Your task to perform on an android device: Go to CNN.com Image 0: 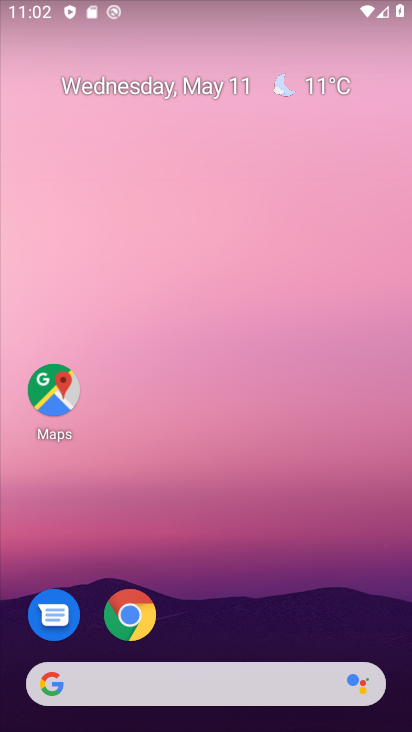
Step 0: click (128, 618)
Your task to perform on an android device: Go to CNN.com Image 1: 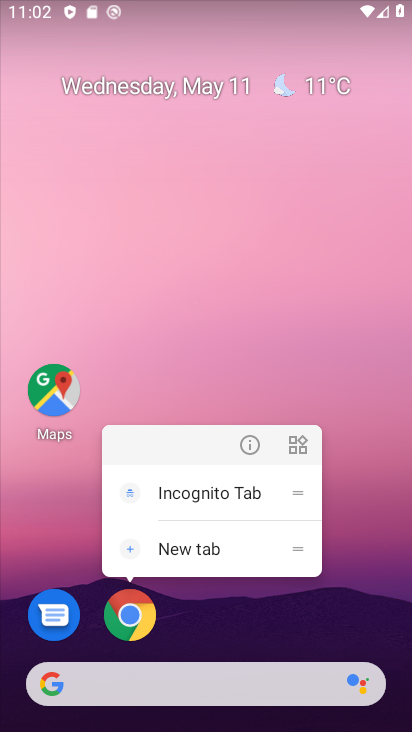
Step 1: click (133, 624)
Your task to perform on an android device: Go to CNN.com Image 2: 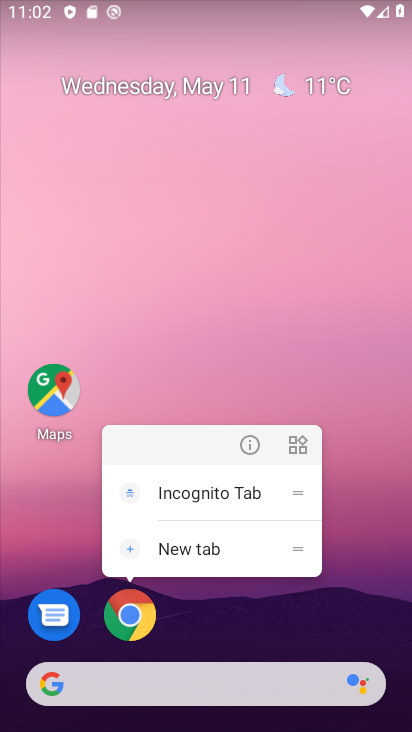
Step 2: click (133, 624)
Your task to perform on an android device: Go to CNN.com Image 3: 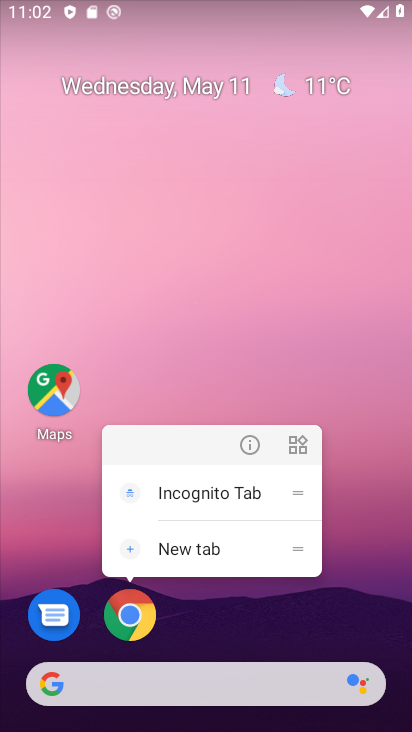
Step 3: click (132, 620)
Your task to perform on an android device: Go to CNN.com Image 4: 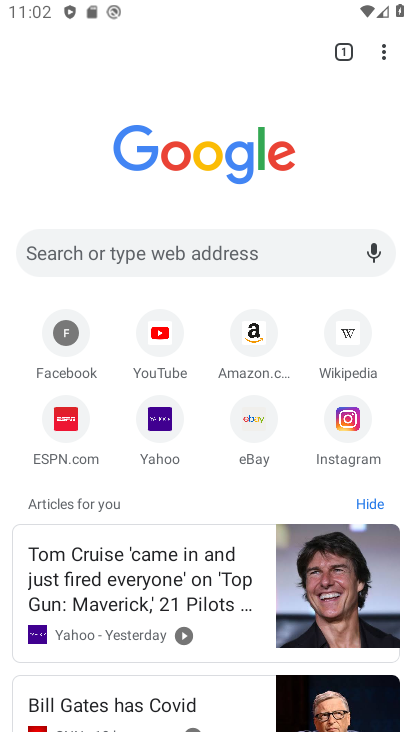
Step 4: click (171, 259)
Your task to perform on an android device: Go to CNN.com Image 5: 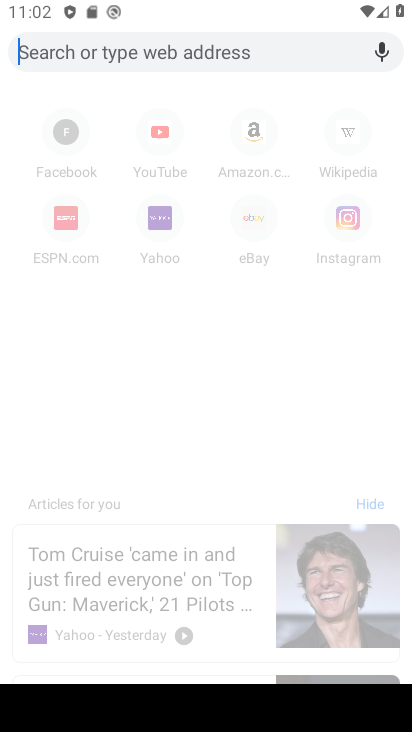
Step 5: type "CNN.com"
Your task to perform on an android device: Go to CNN.com Image 6: 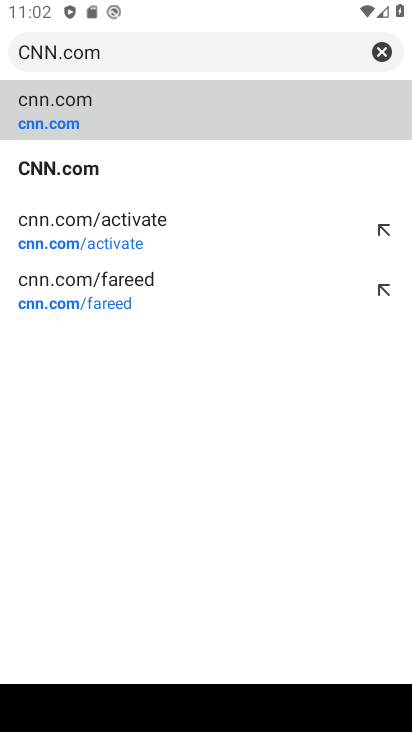
Step 6: click (107, 178)
Your task to perform on an android device: Go to CNN.com Image 7: 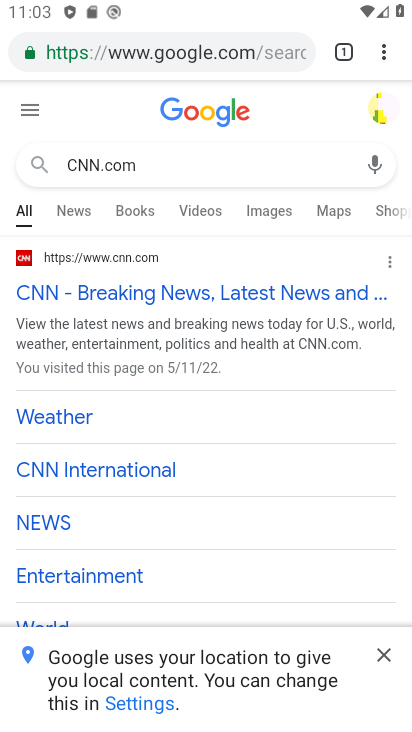
Step 7: click (388, 657)
Your task to perform on an android device: Go to CNN.com Image 8: 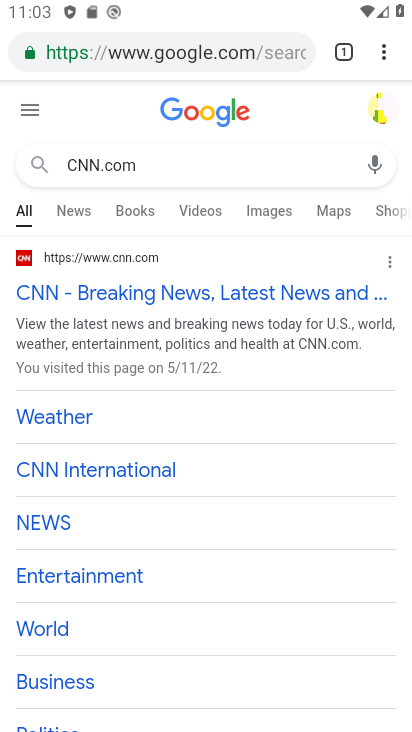
Step 8: click (322, 298)
Your task to perform on an android device: Go to CNN.com Image 9: 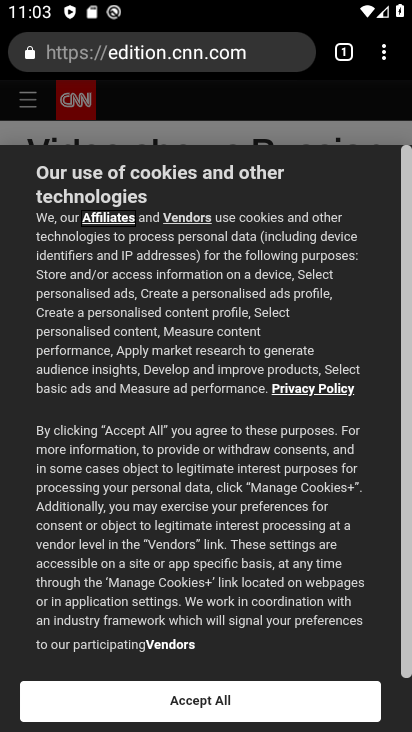
Step 9: drag from (224, 601) to (300, 305)
Your task to perform on an android device: Go to CNN.com Image 10: 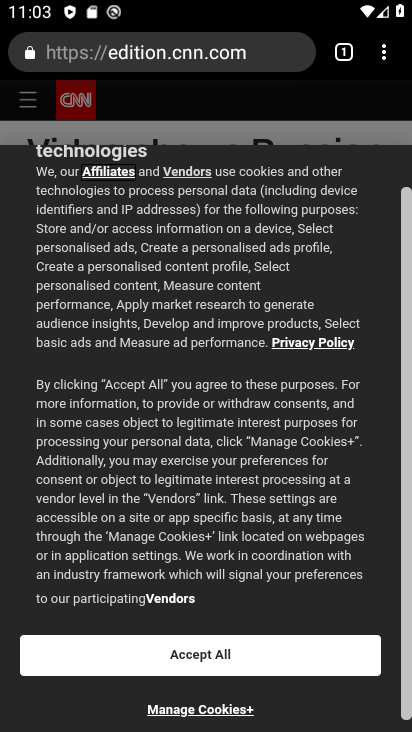
Step 10: click (198, 666)
Your task to perform on an android device: Go to CNN.com Image 11: 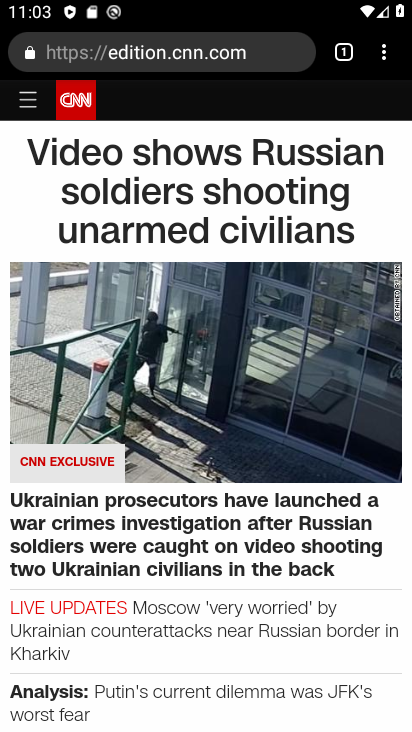
Step 11: task complete